Your task to perform on an android device: toggle sleep mode Image 0: 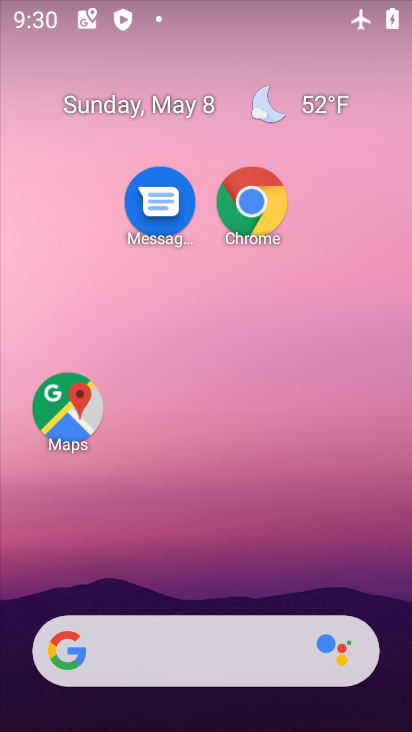
Step 0: drag from (199, 595) to (287, 22)
Your task to perform on an android device: toggle sleep mode Image 1: 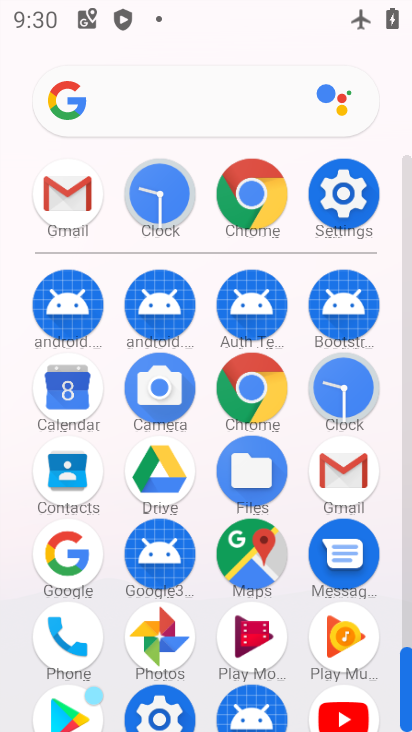
Step 1: click (333, 193)
Your task to perform on an android device: toggle sleep mode Image 2: 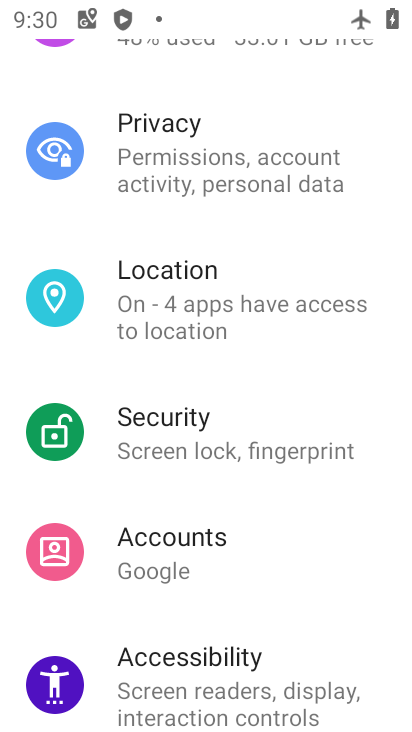
Step 2: drag from (170, 110) to (116, 630)
Your task to perform on an android device: toggle sleep mode Image 3: 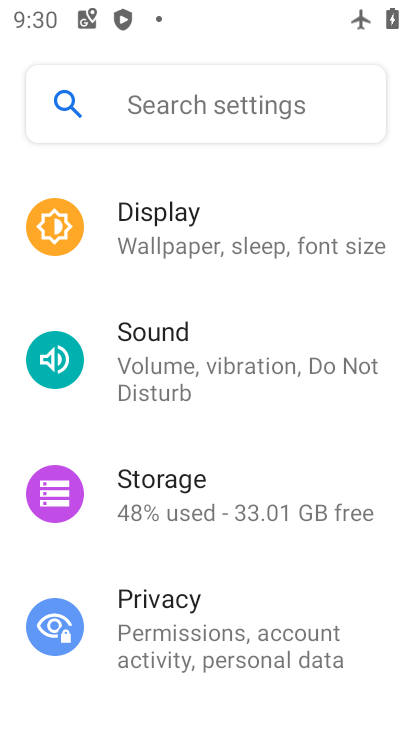
Step 3: click (141, 240)
Your task to perform on an android device: toggle sleep mode Image 4: 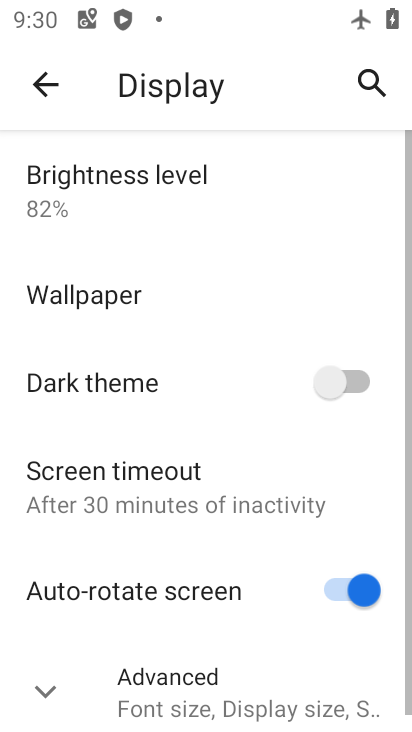
Step 4: drag from (175, 602) to (120, 228)
Your task to perform on an android device: toggle sleep mode Image 5: 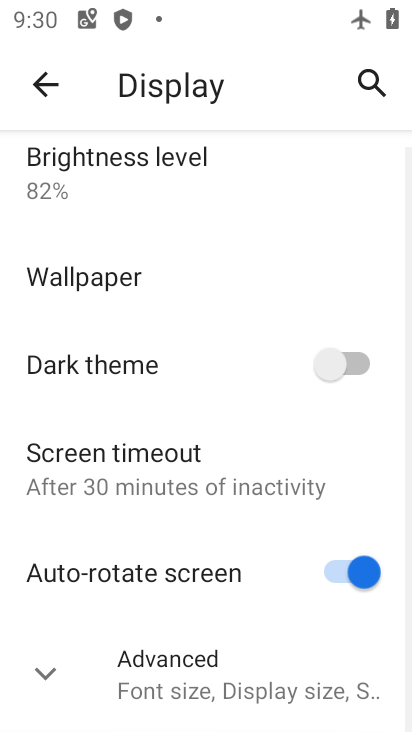
Step 5: click (121, 710)
Your task to perform on an android device: toggle sleep mode Image 6: 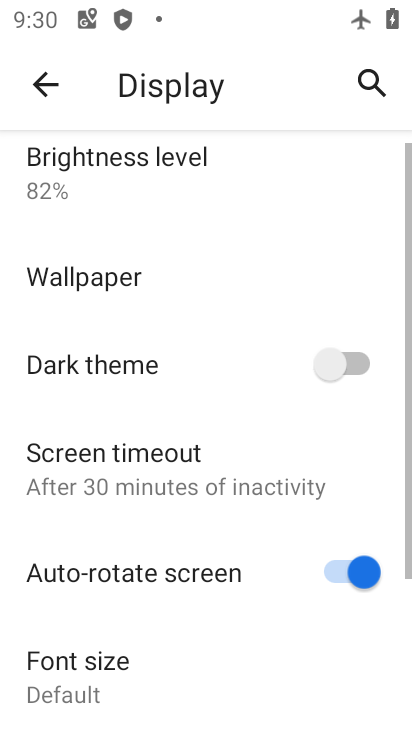
Step 6: task complete